Your task to perform on an android device: Empty the shopping cart on bestbuy.com. Image 0: 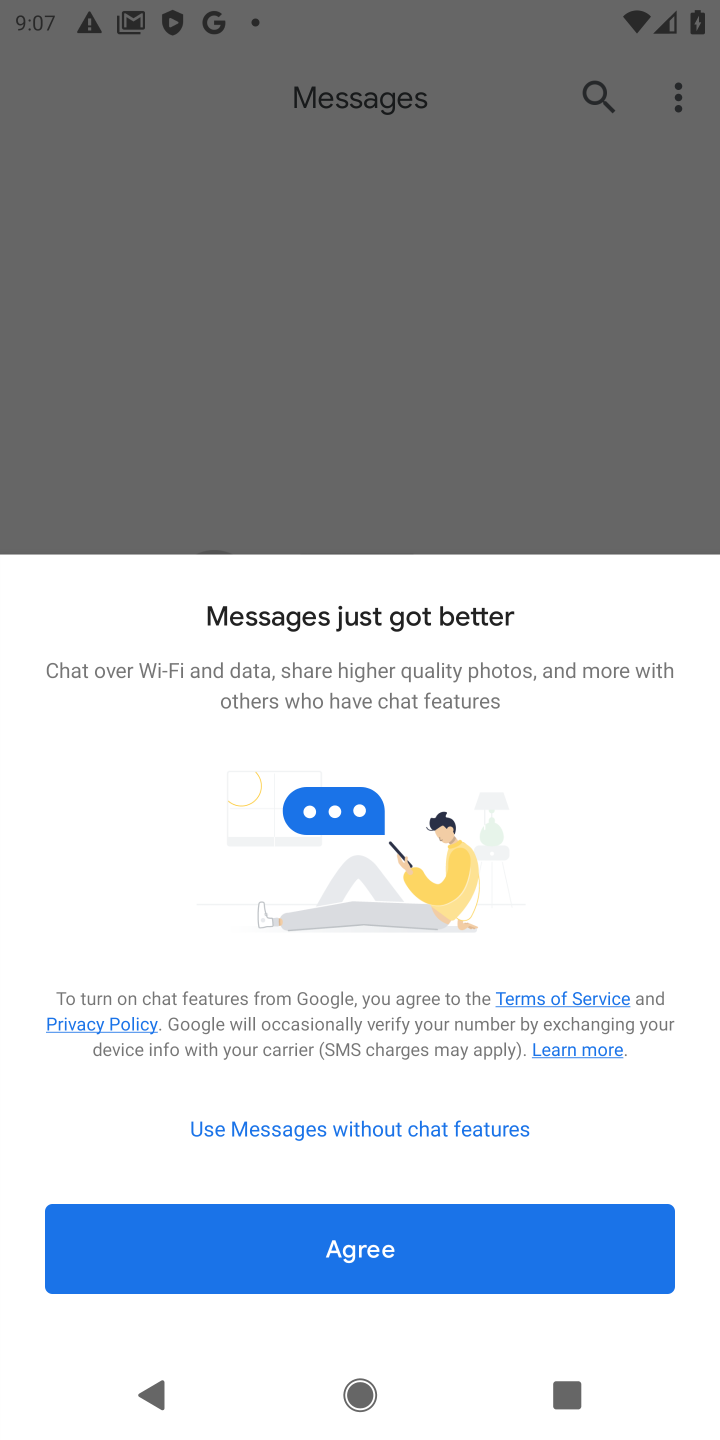
Step 0: press home button
Your task to perform on an android device: Empty the shopping cart on bestbuy.com. Image 1: 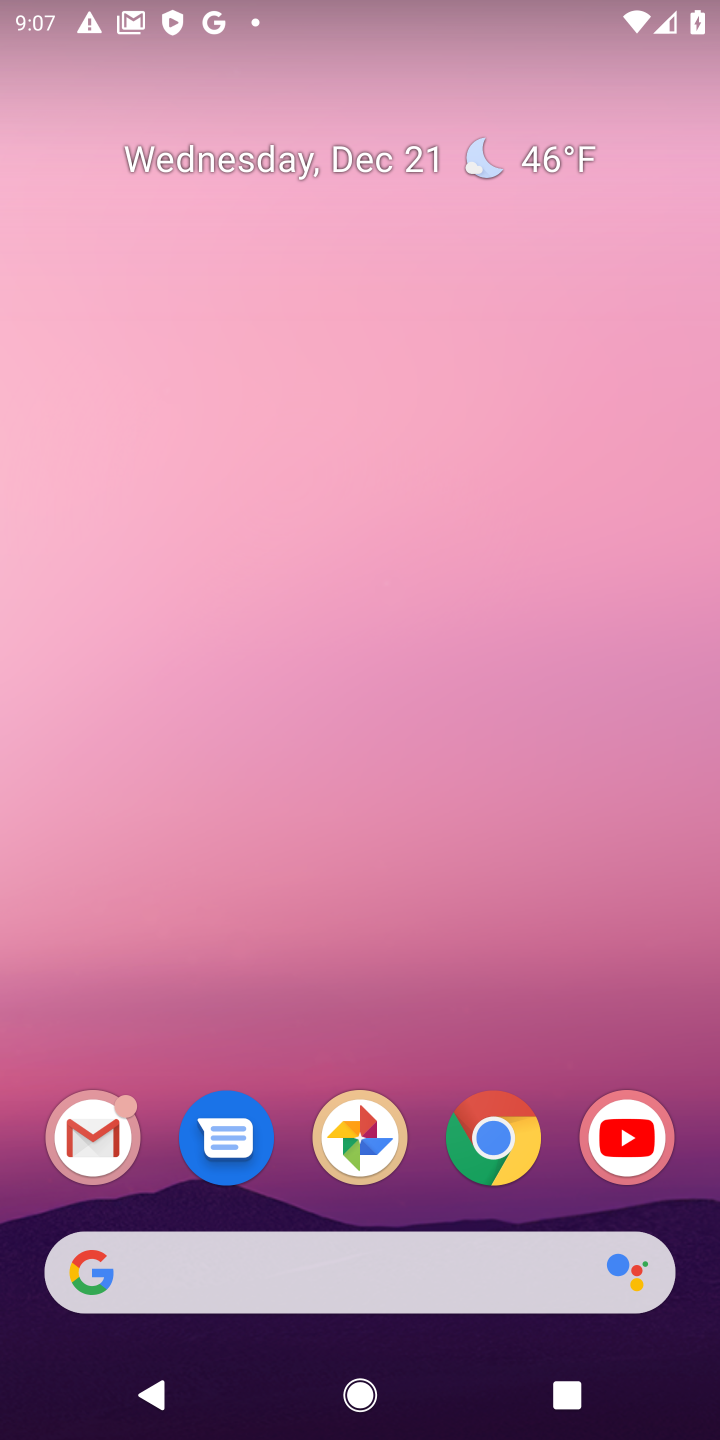
Step 1: click (500, 1142)
Your task to perform on an android device: Empty the shopping cart on bestbuy.com. Image 2: 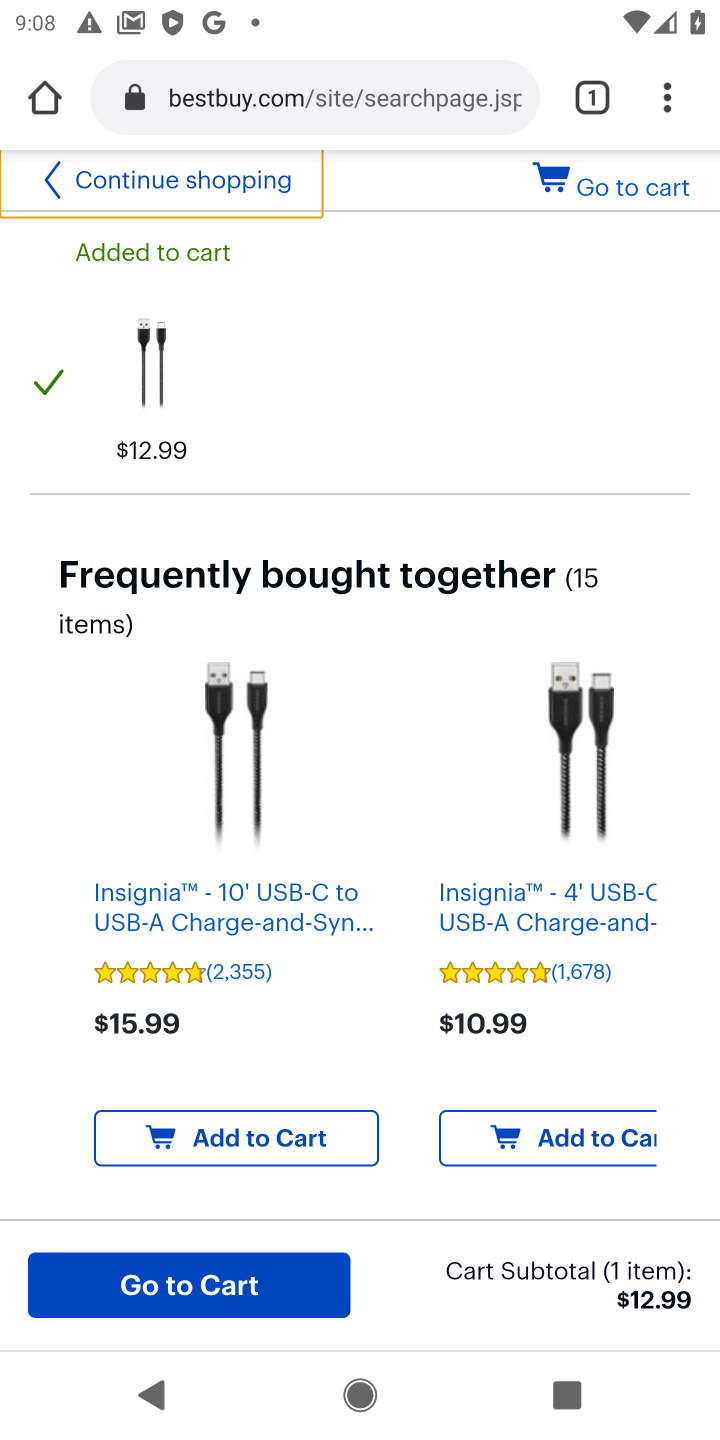
Step 2: press back button
Your task to perform on an android device: Empty the shopping cart on bestbuy.com. Image 3: 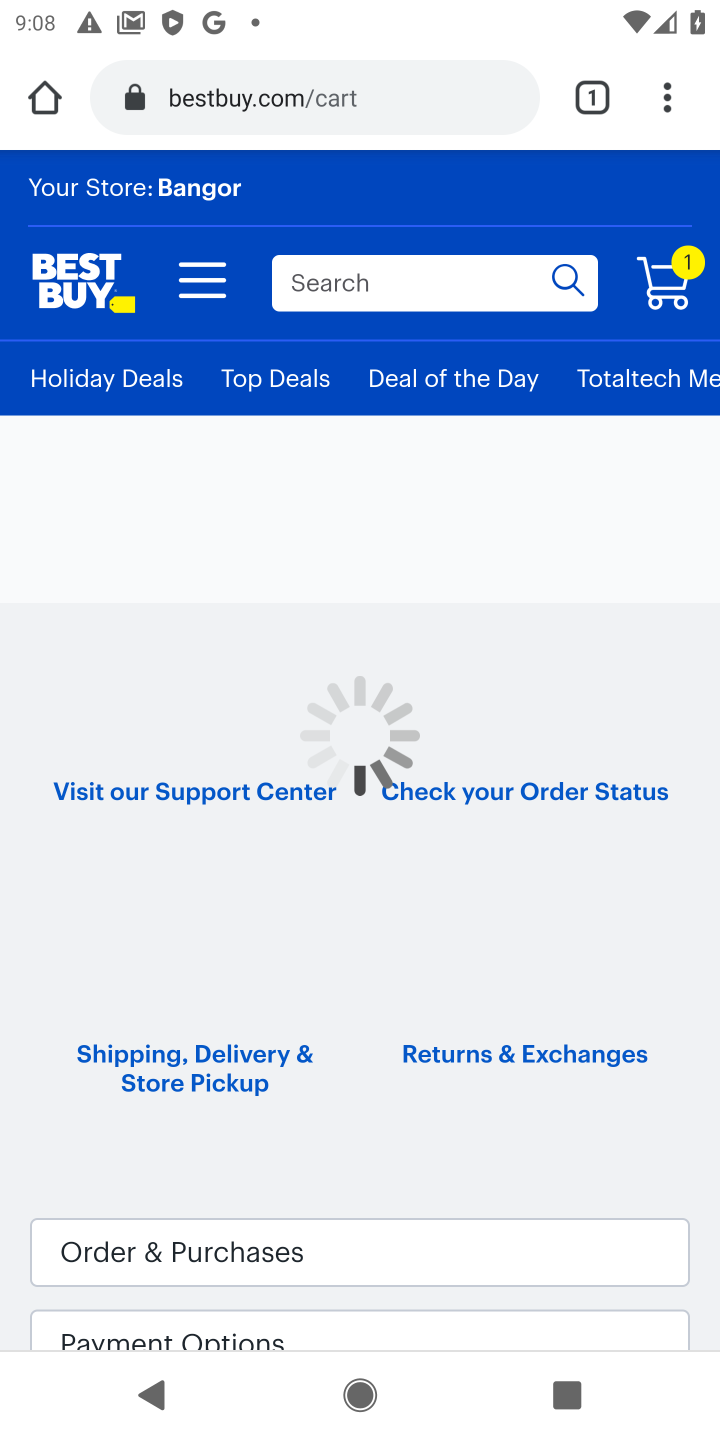
Step 3: click (679, 283)
Your task to perform on an android device: Empty the shopping cart on bestbuy.com. Image 4: 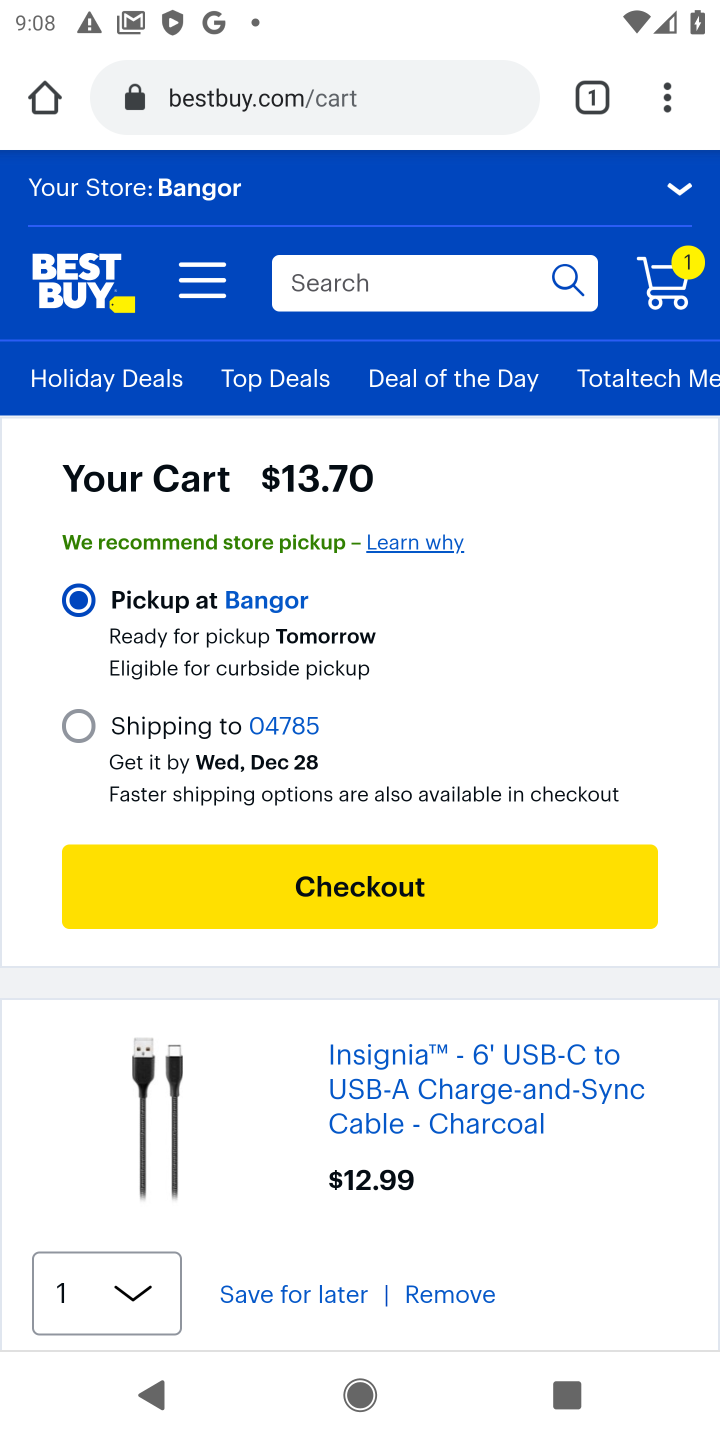
Step 4: drag from (184, 849) to (192, 627)
Your task to perform on an android device: Empty the shopping cart on bestbuy.com. Image 5: 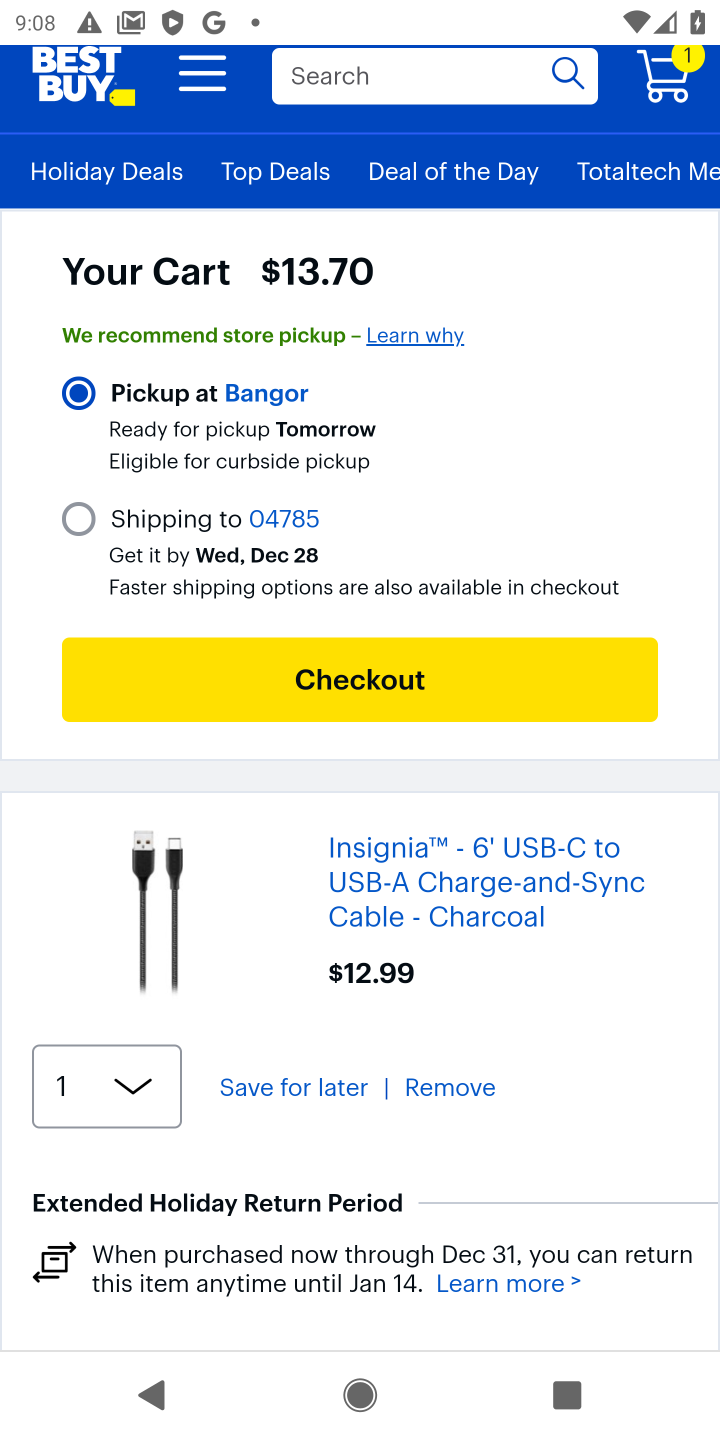
Step 5: click (441, 1085)
Your task to perform on an android device: Empty the shopping cart on bestbuy.com. Image 6: 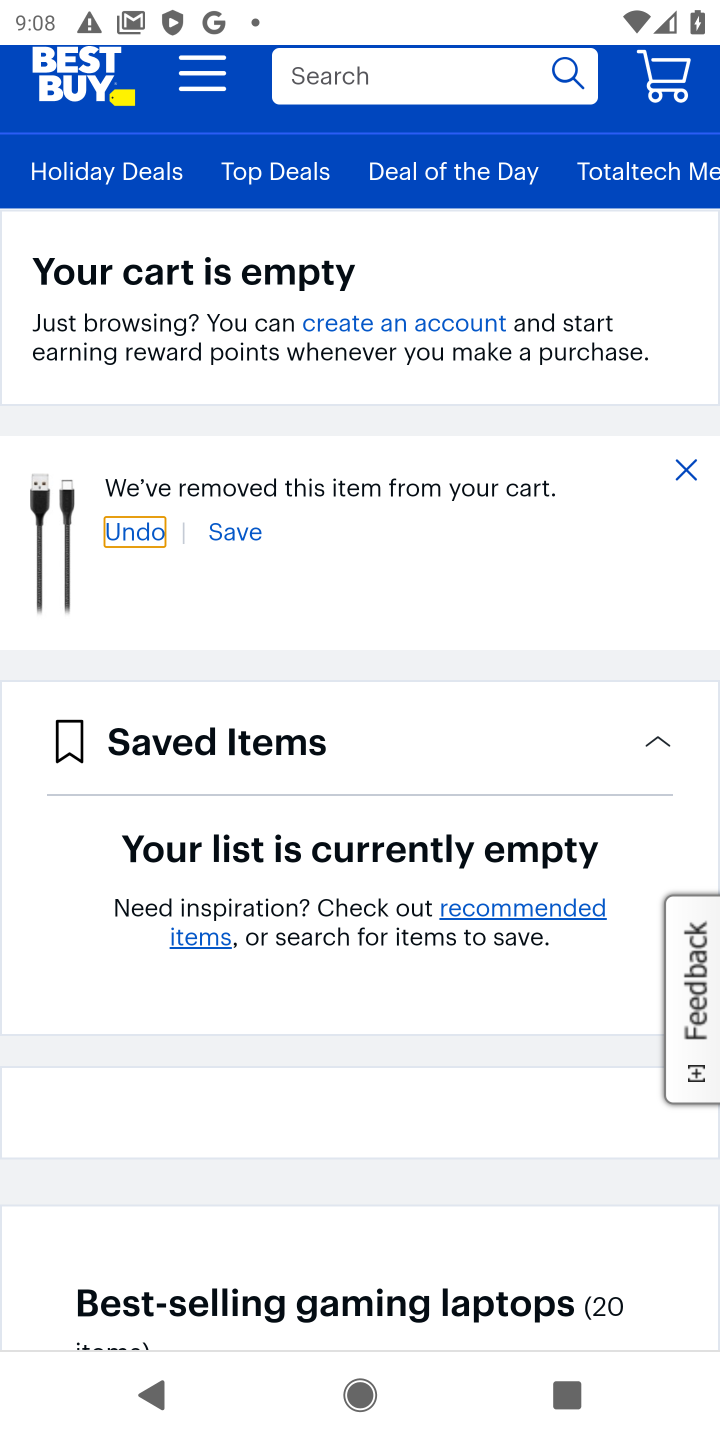
Step 6: task complete